Your task to perform on an android device: Go to eBay Image 0: 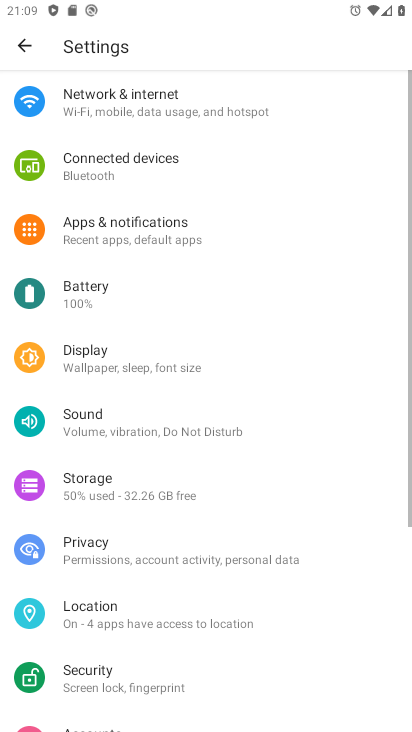
Step 0: press home button
Your task to perform on an android device: Go to eBay Image 1: 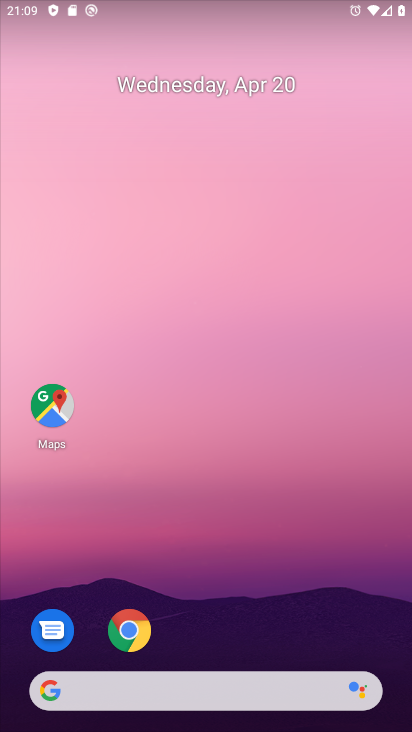
Step 1: click (131, 625)
Your task to perform on an android device: Go to eBay Image 2: 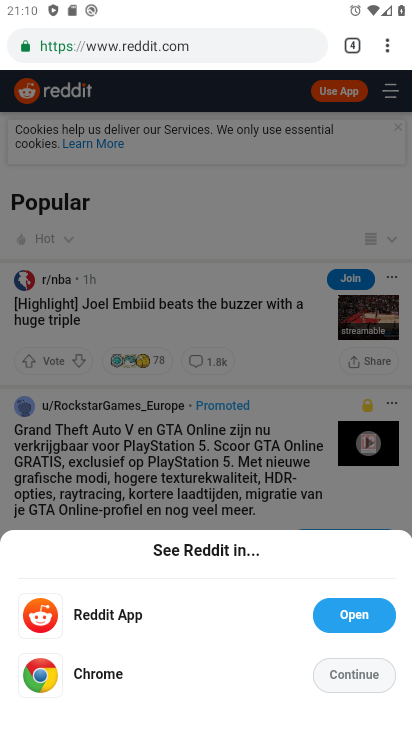
Step 2: click (352, 37)
Your task to perform on an android device: Go to eBay Image 3: 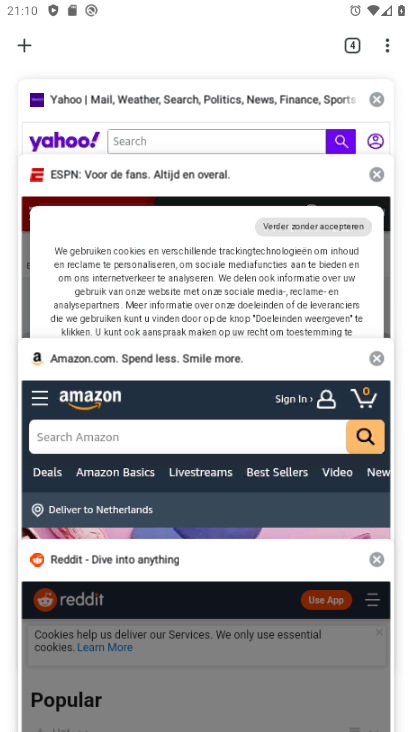
Step 3: click (28, 43)
Your task to perform on an android device: Go to eBay Image 4: 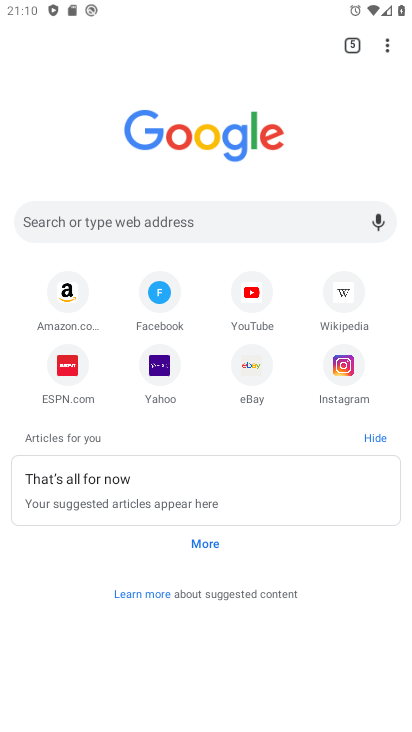
Step 4: click (245, 364)
Your task to perform on an android device: Go to eBay Image 5: 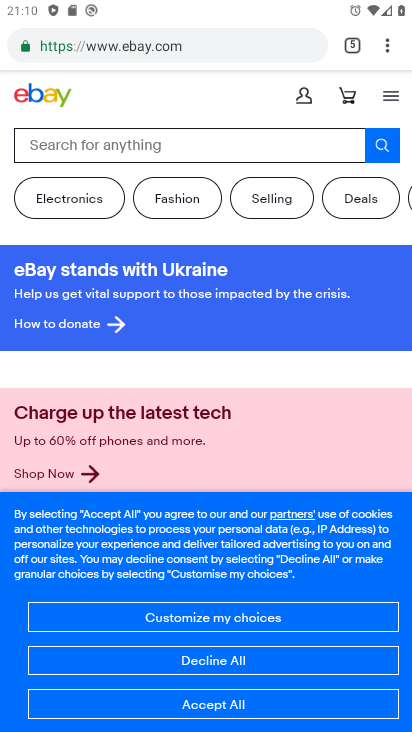
Step 5: task complete